Your task to perform on an android device: show emergency info Image 0: 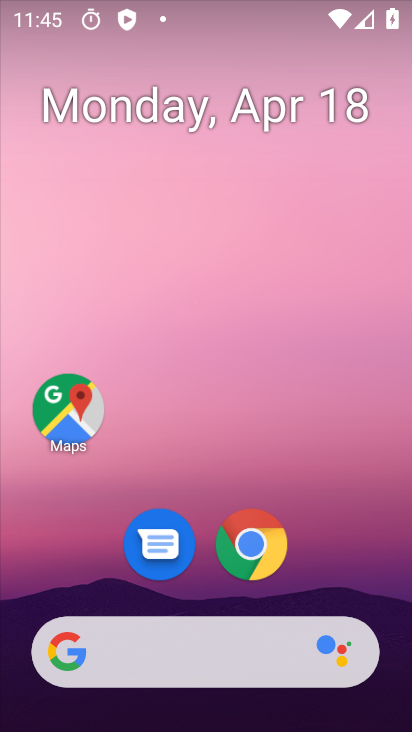
Step 0: drag from (383, 575) to (386, 14)
Your task to perform on an android device: show emergency info Image 1: 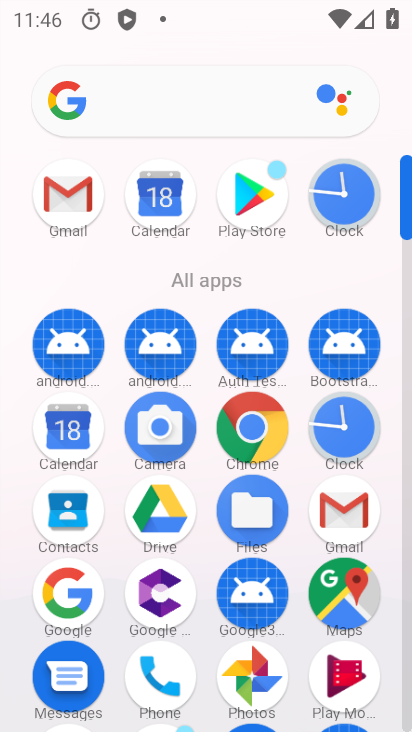
Step 1: drag from (407, 633) to (401, 581)
Your task to perform on an android device: show emergency info Image 2: 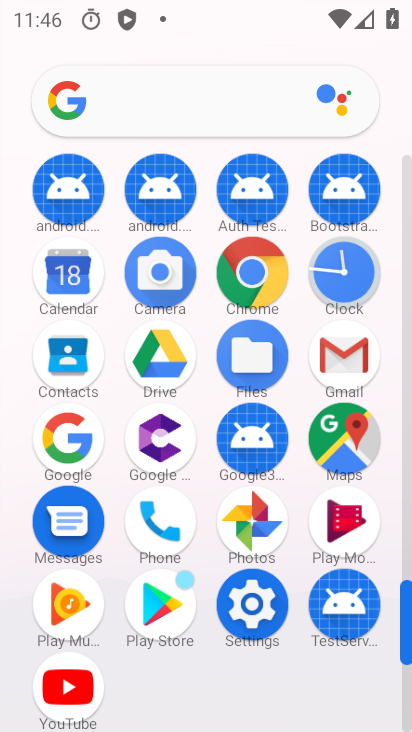
Step 2: click (269, 616)
Your task to perform on an android device: show emergency info Image 3: 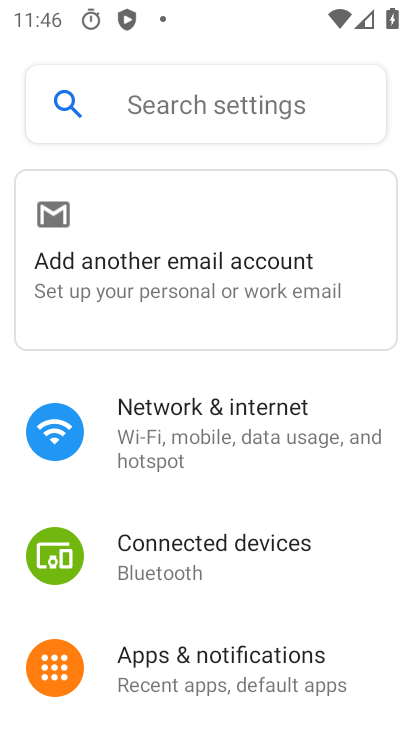
Step 3: drag from (368, 574) to (362, 209)
Your task to perform on an android device: show emergency info Image 4: 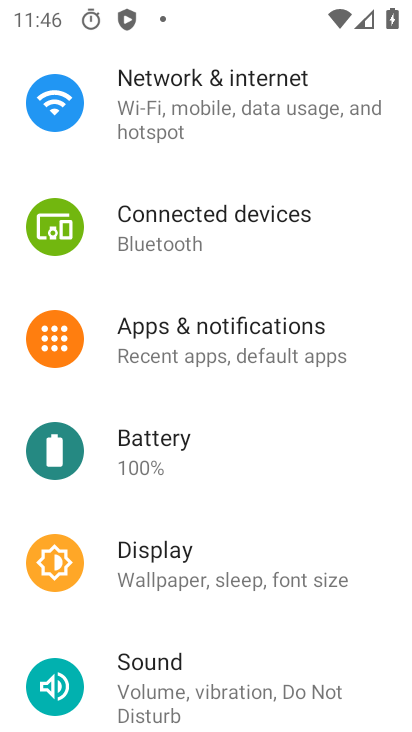
Step 4: drag from (377, 533) to (334, 214)
Your task to perform on an android device: show emergency info Image 5: 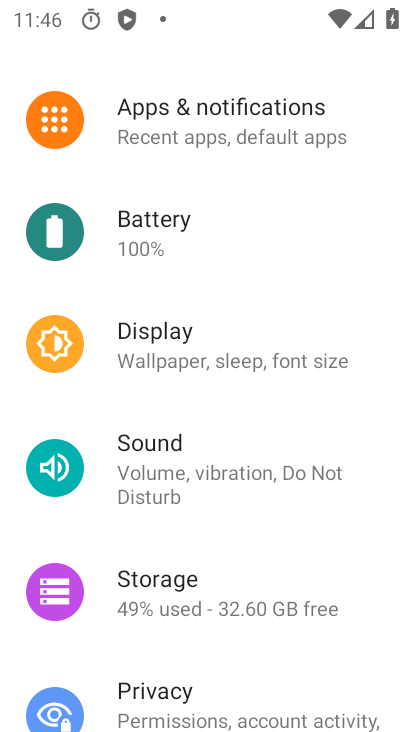
Step 5: drag from (339, 510) to (319, 200)
Your task to perform on an android device: show emergency info Image 6: 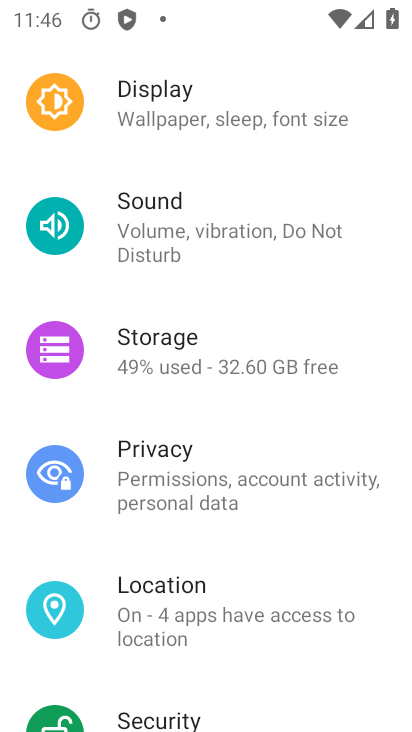
Step 6: drag from (274, 574) to (275, 170)
Your task to perform on an android device: show emergency info Image 7: 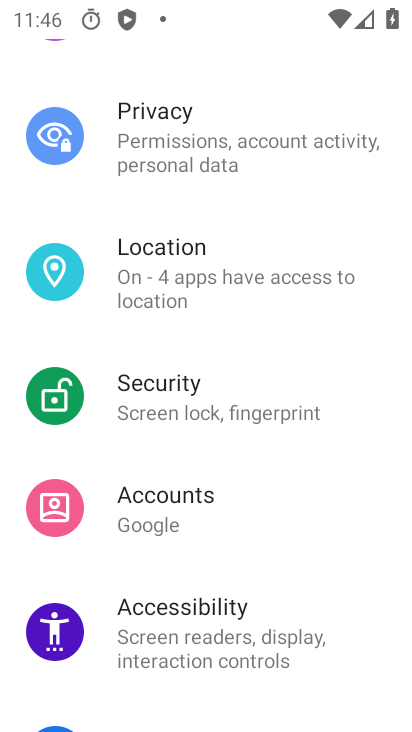
Step 7: drag from (300, 497) to (281, 194)
Your task to perform on an android device: show emergency info Image 8: 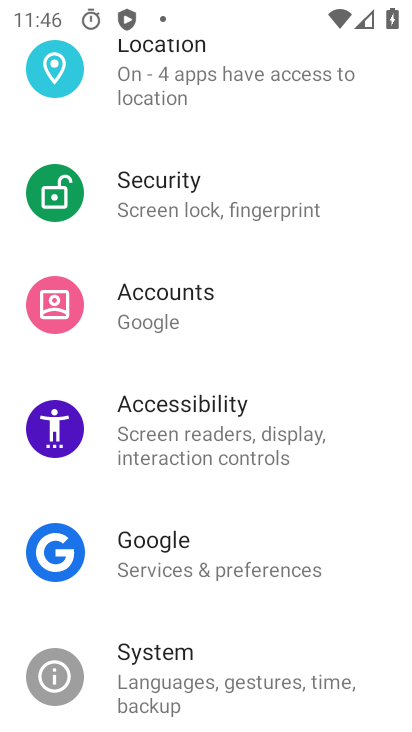
Step 8: drag from (367, 570) to (368, 232)
Your task to perform on an android device: show emergency info Image 9: 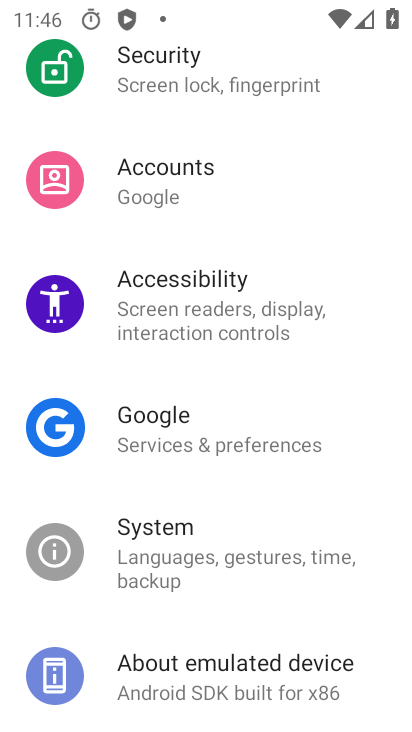
Step 9: click (187, 687)
Your task to perform on an android device: show emergency info Image 10: 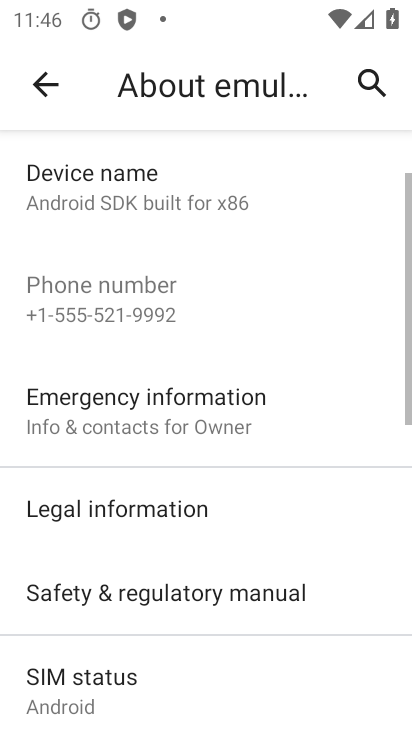
Step 10: click (138, 418)
Your task to perform on an android device: show emergency info Image 11: 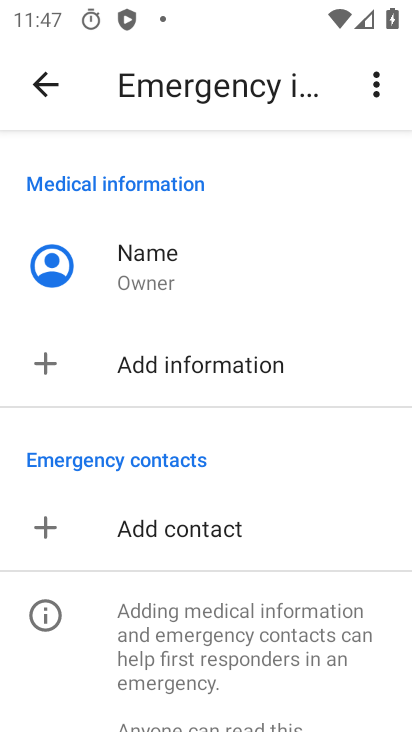
Step 11: task complete